Your task to perform on an android device: set an alarm Image 0: 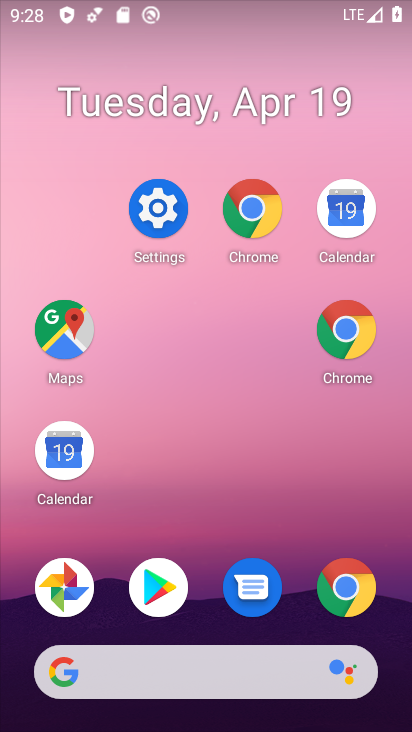
Step 0: drag from (233, 402) to (160, 160)
Your task to perform on an android device: set an alarm Image 1: 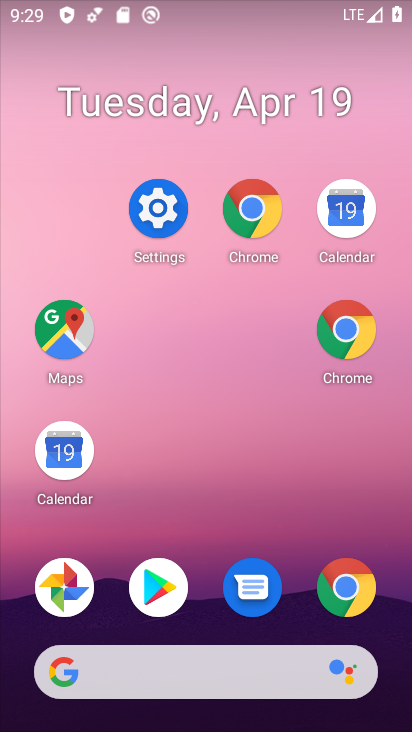
Step 1: drag from (371, 537) to (174, 169)
Your task to perform on an android device: set an alarm Image 2: 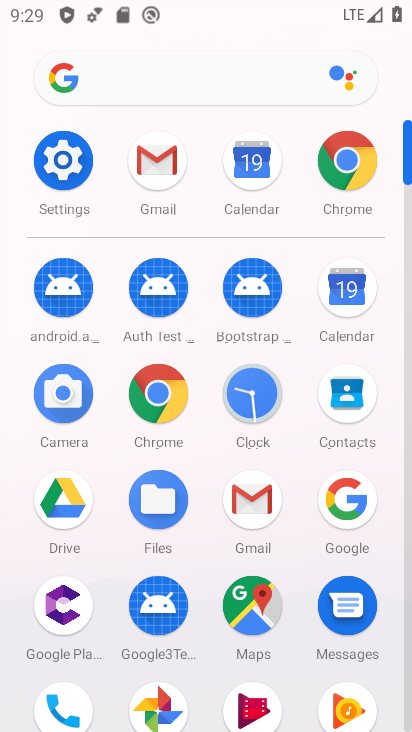
Step 2: click (258, 392)
Your task to perform on an android device: set an alarm Image 3: 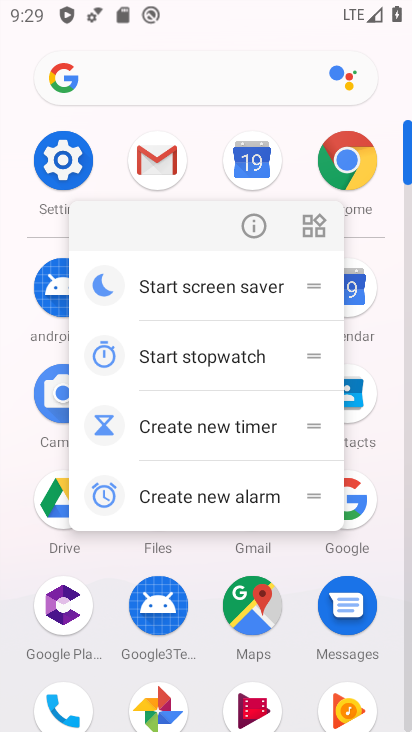
Step 3: click (387, 345)
Your task to perform on an android device: set an alarm Image 4: 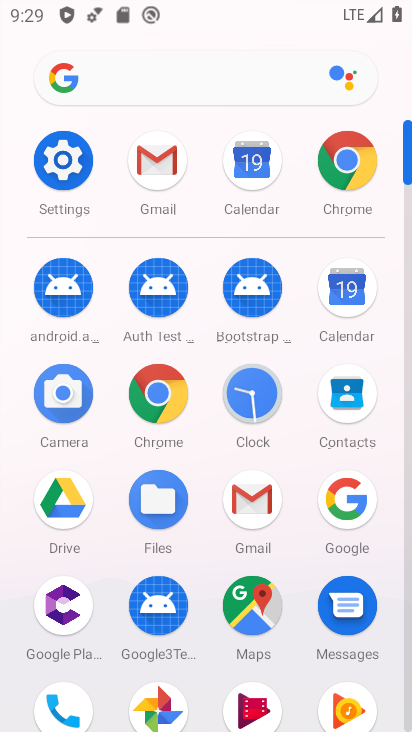
Step 4: click (238, 387)
Your task to perform on an android device: set an alarm Image 5: 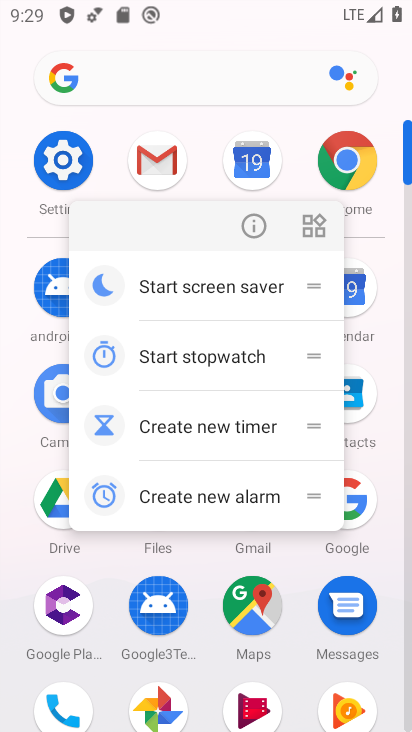
Step 5: click (379, 362)
Your task to perform on an android device: set an alarm Image 6: 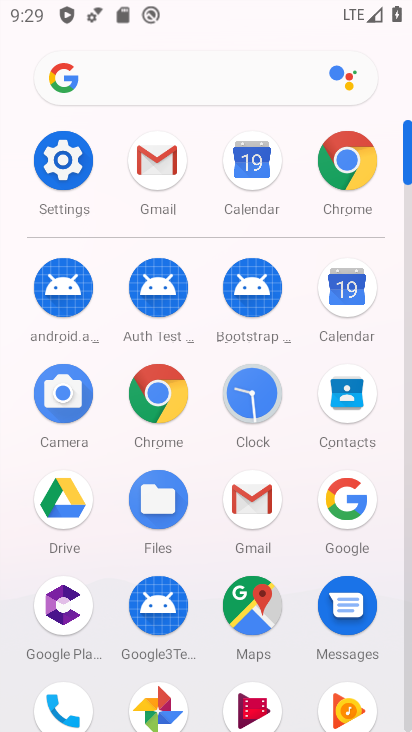
Step 6: click (255, 403)
Your task to perform on an android device: set an alarm Image 7: 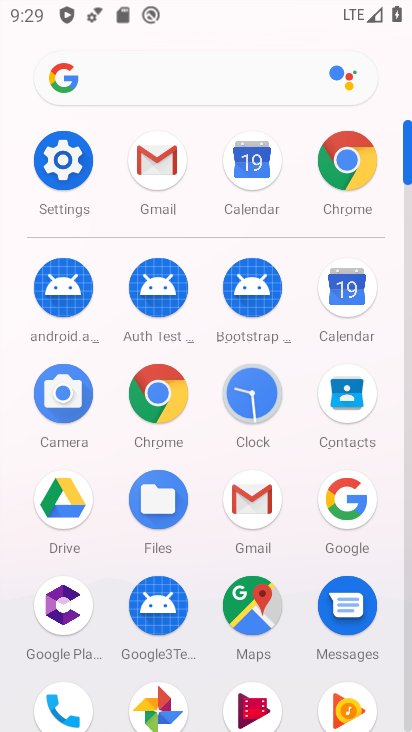
Step 7: click (268, 393)
Your task to perform on an android device: set an alarm Image 8: 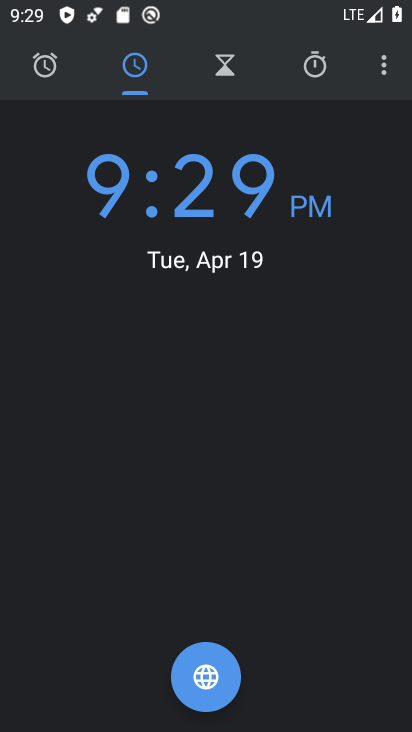
Step 8: click (39, 65)
Your task to perform on an android device: set an alarm Image 9: 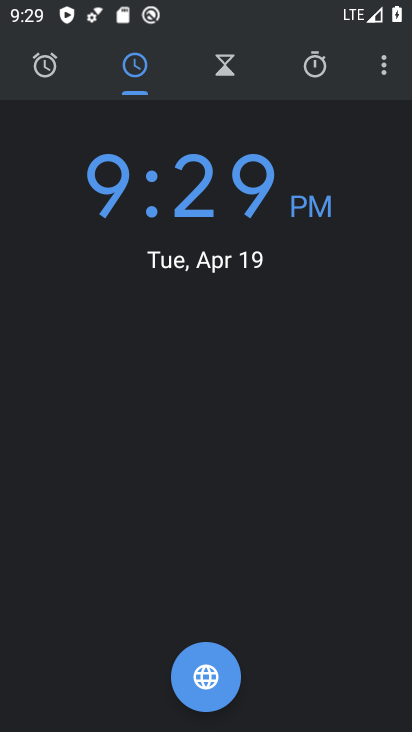
Step 9: click (39, 71)
Your task to perform on an android device: set an alarm Image 10: 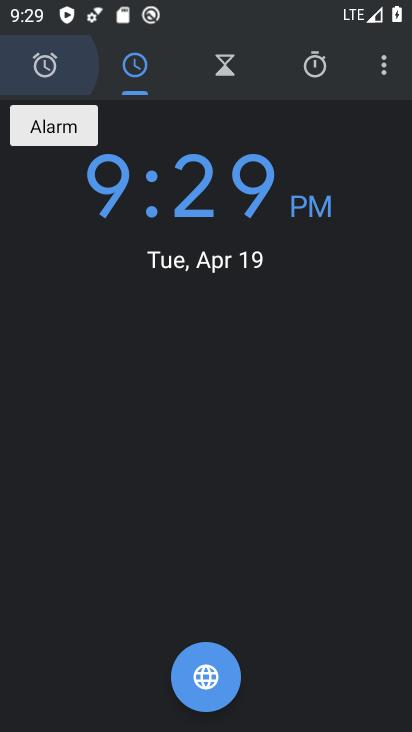
Step 10: click (41, 69)
Your task to perform on an android device: set an alarm Image 11: 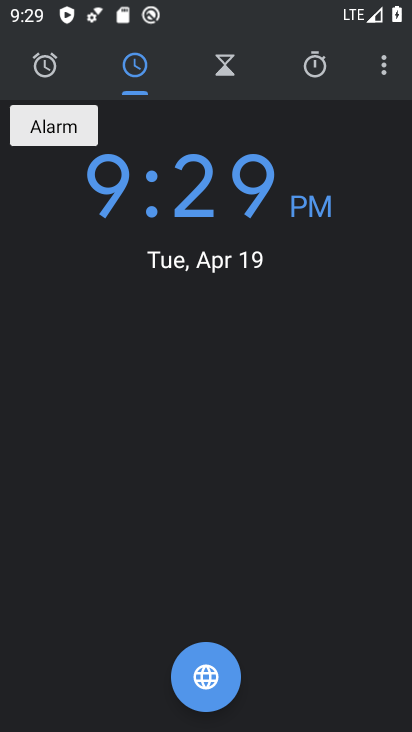
Step 11: click (49, 128)
Your task to perform on an android device: set an alarm Image 12: 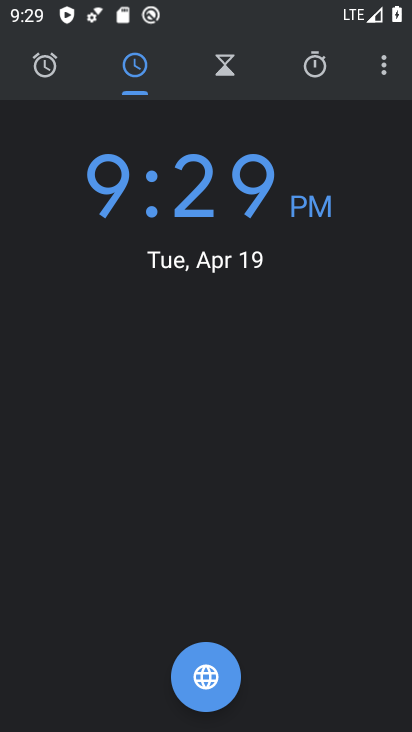
Step 12: click (42, 67)
Your task to perform on an android device: set an alarm Image 13: 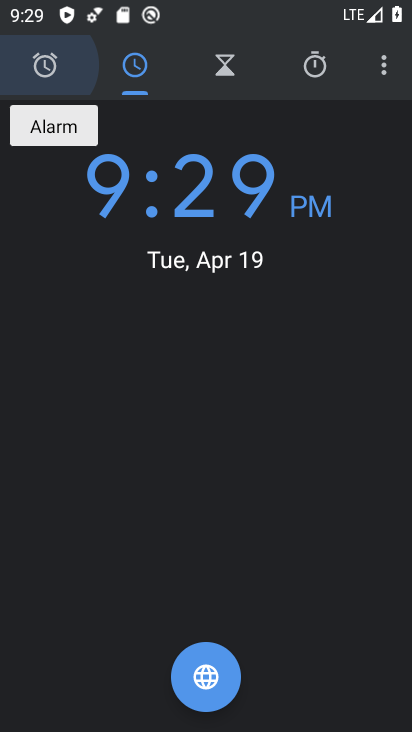
Step 13: click (46, 64)
Your task to perform on an android device: set an alarm Image 14: 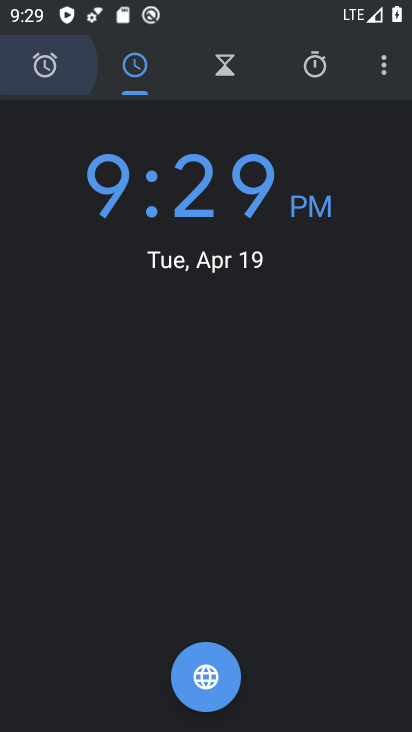
Step 14: click (46, 64)
Your task to perform on an android device: set an alarm Image 15: 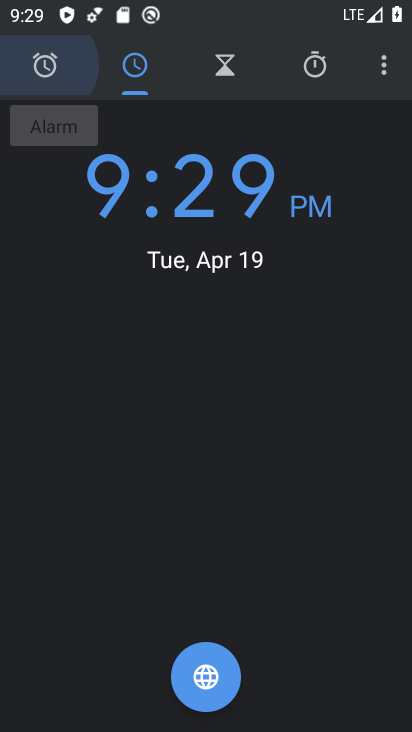
Step 15: click (46, 64)
Your task to perform on an android device: set an alarm Image 16: 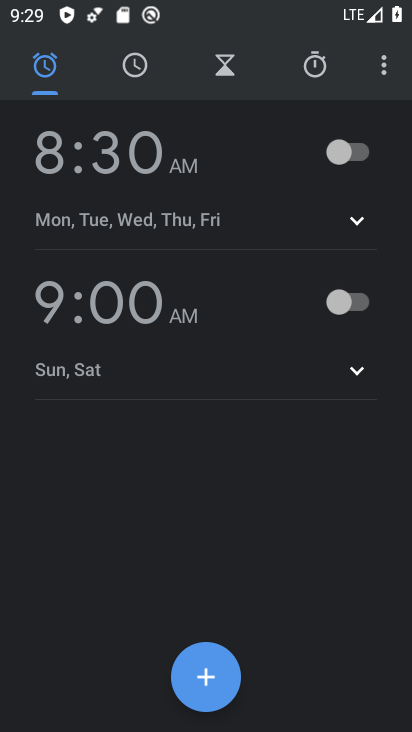
Step 16: click (339, 152)
Your task to perform on an android device: set an alarm Image 17: 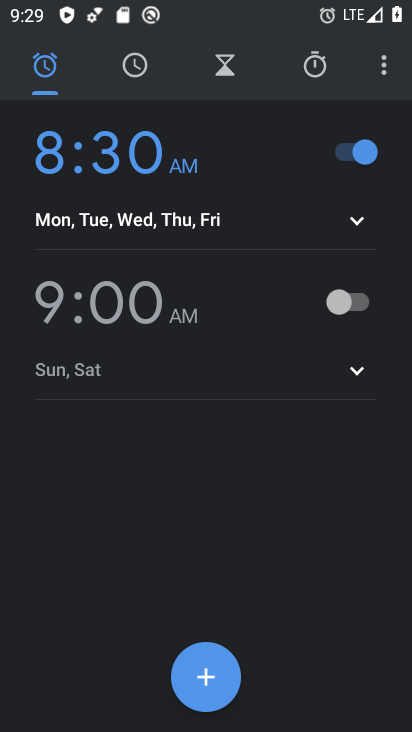
Step 17: task complete